Your task to perform on an android device: open app "Spotify" Image 0: 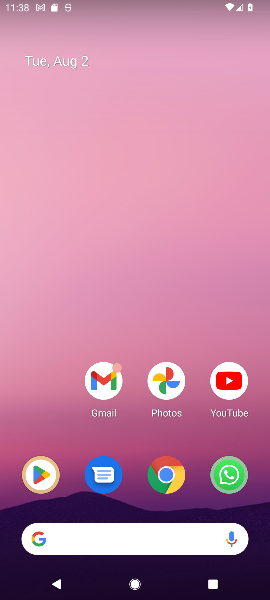
Step 0: click (45, 474)
Your task to perform on an android device: open app "Spotify" Image 1: 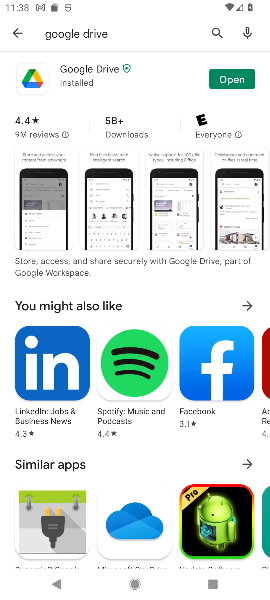
Step 1: click (219, 28)
Your task to perform on an android device: open app "Spotify" Image 2: 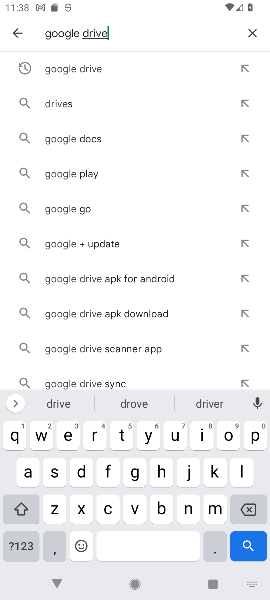
Step 2: click (255, 35)
Your task to perform on an android device: open app "Spotify" Image 3: 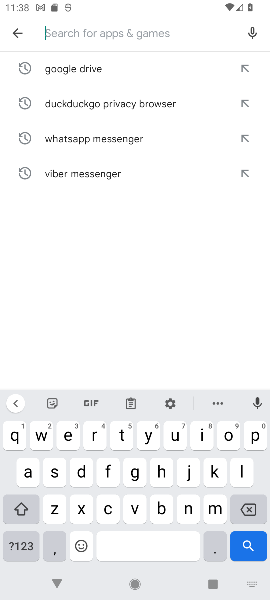
Step 3: type "Spotify""
Your task to perform on an android device: open app "Spotify" Image 4: 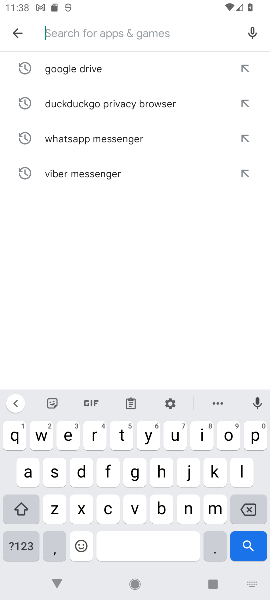
Step 4: type ""
Your task to perform on an android device: open app "Spotify" Image 5: 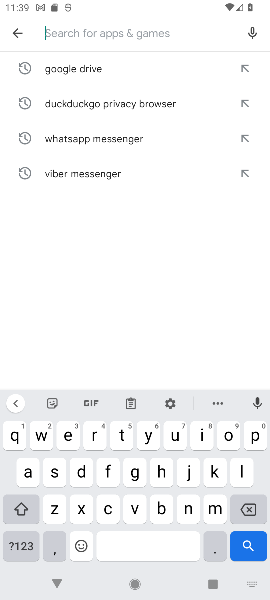
Step 5: type "Spotify""
Your task to perform on an android device: open app "Spotify" Image 6: 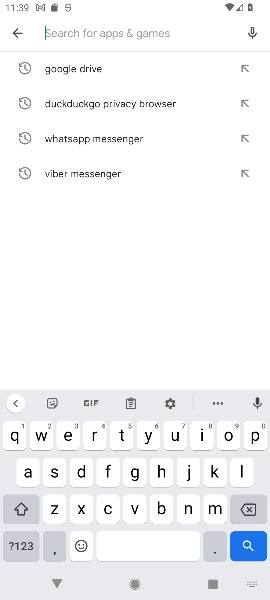
Step 6: type ""
Your task to perform on an android device: open app "Spotify" Image 7: 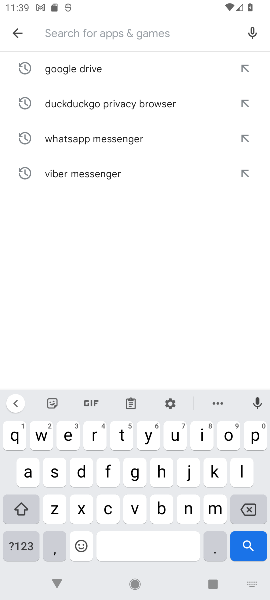
Step 7: press home button
Your task to perform on an android device: open app "Spotify" Image 8: 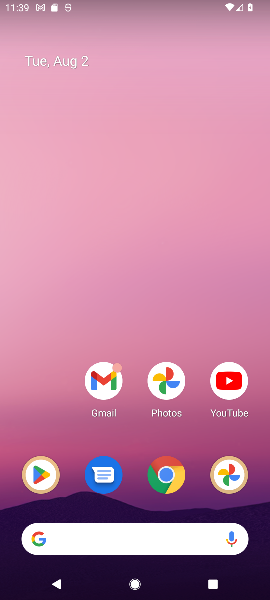
Step 8: click (43, 474)
Your task to perform on an android device: open app "Spotify" Image 9: 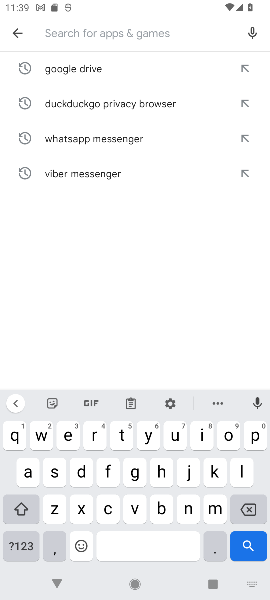
Step 9: type "Spotify"
Your task to perform on an android device: open app "Spotify" Image 10: 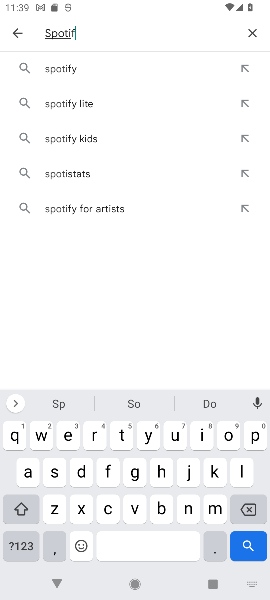
Step 10: type ""
Your task to perform on an android device: open app "Spotify" Image 11: 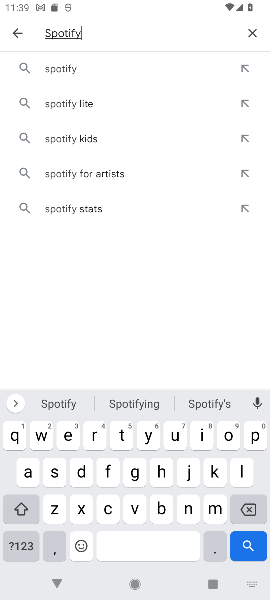
Step 11: click (106, 58)
Your task to perform on an android device: open app "Spotify" Image 12: 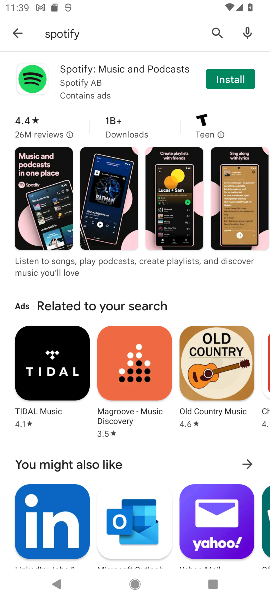
Step 12: task complete